Your task to perform on an android device: Empty the shopping cart on target. Search for "razer blackwidow" on target, select the first entry, add it to the cart, then select checkout. Image 0: 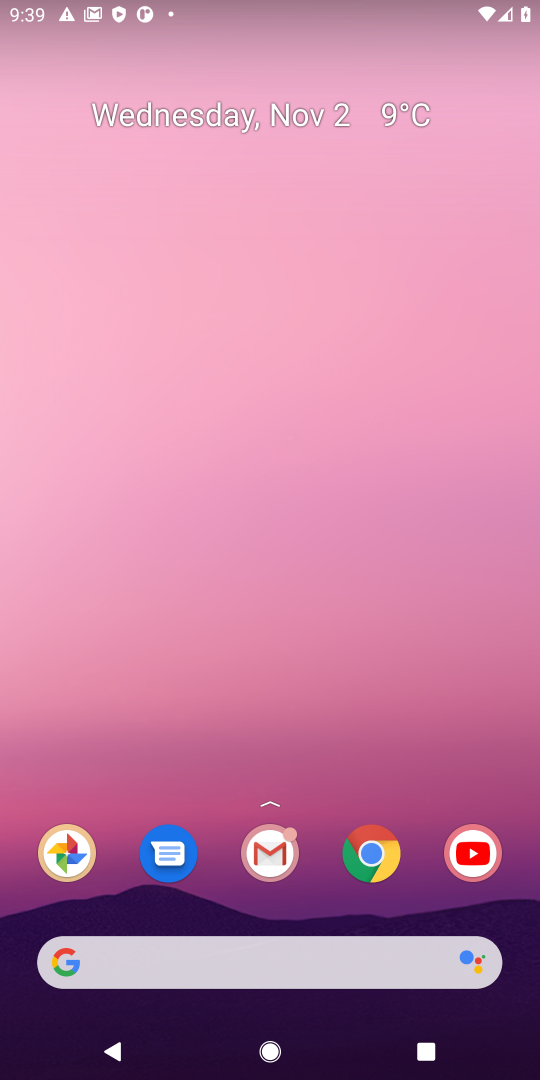
Step 0: click (368, 856)
Your task to perform on an android device: Empty the shopping cart on target. Search for "razer blackwidow" on target, select the first entry, add it to the cart, then select checkout. Image 1: 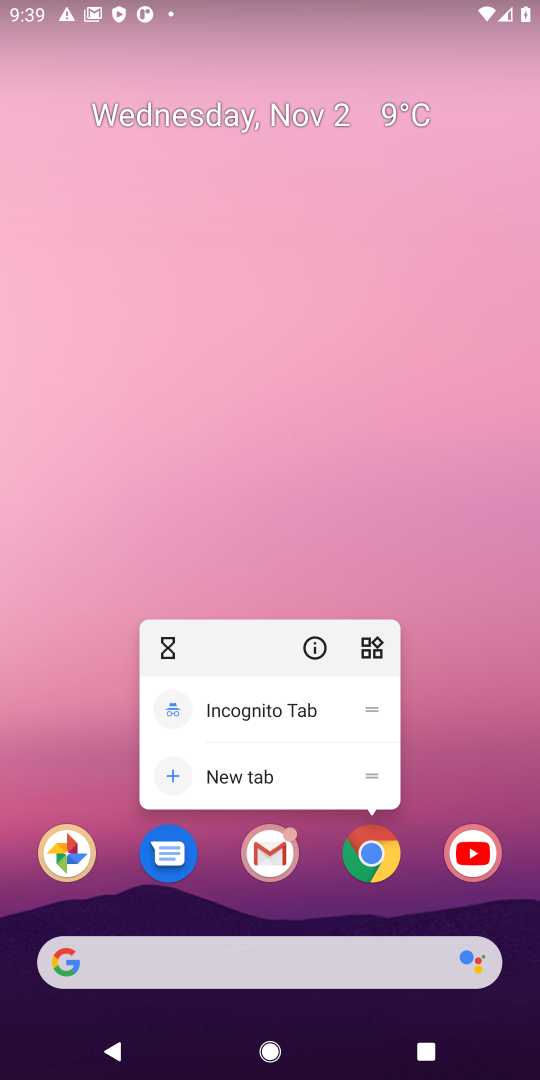
Step 1: click (356, 873)
Your task to perform on an android device: Empty the shopping cart on target. Search for "razer blackwidow" on target, select the first entry, add it to the cart, then select checkout. Image 2: 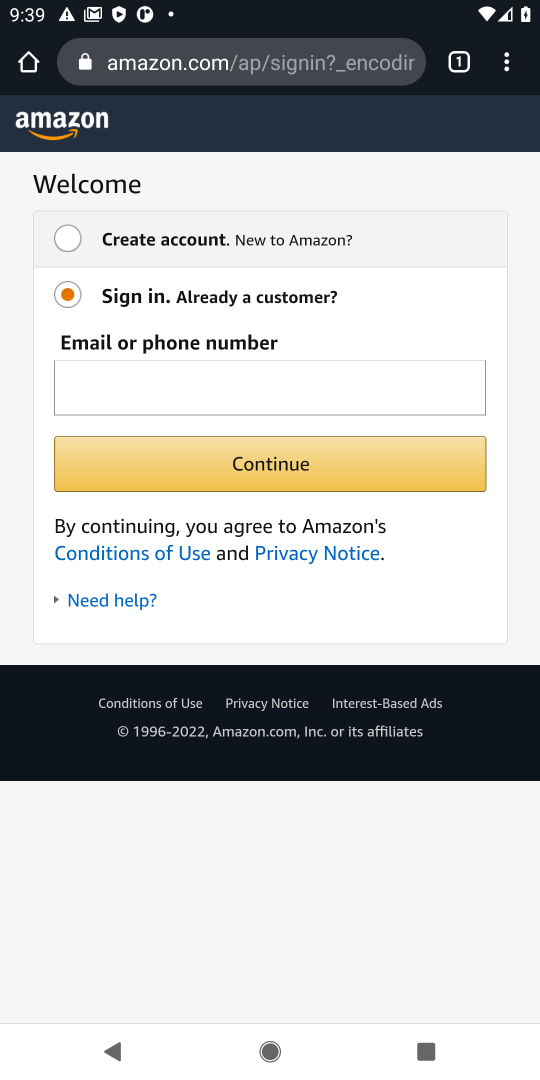
Step 2: click (263, 62)
Your task to perform on an android device: Empty the shopping cart on target. Search for "razer blackwidow" on target, select the first entry, add it to the cart, then select checkout. Image 3: 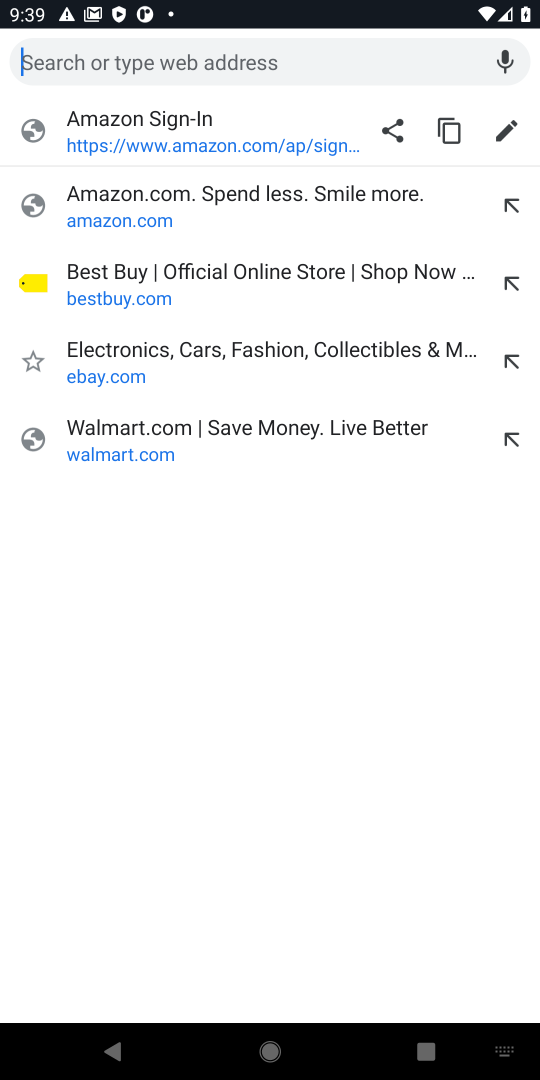
Step 3: type "target"
Your task to perform on an android device: Empty the shopping cart on target. Search for "razer blackwidow" on target, select the first entry, add it to the cart, then select checkout. Image 4: 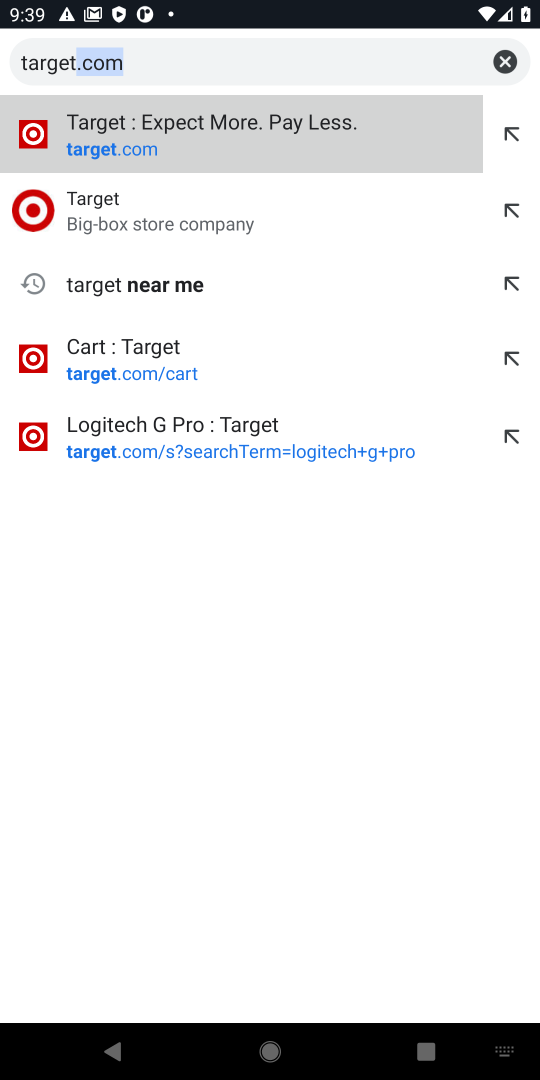
Step 4: press enter
Your task to perform on an android device: Empty the shopping cart on target. Search for "razer blackwidow" on target, select the first entry, add it to the cart, then select checkout. Image 5: 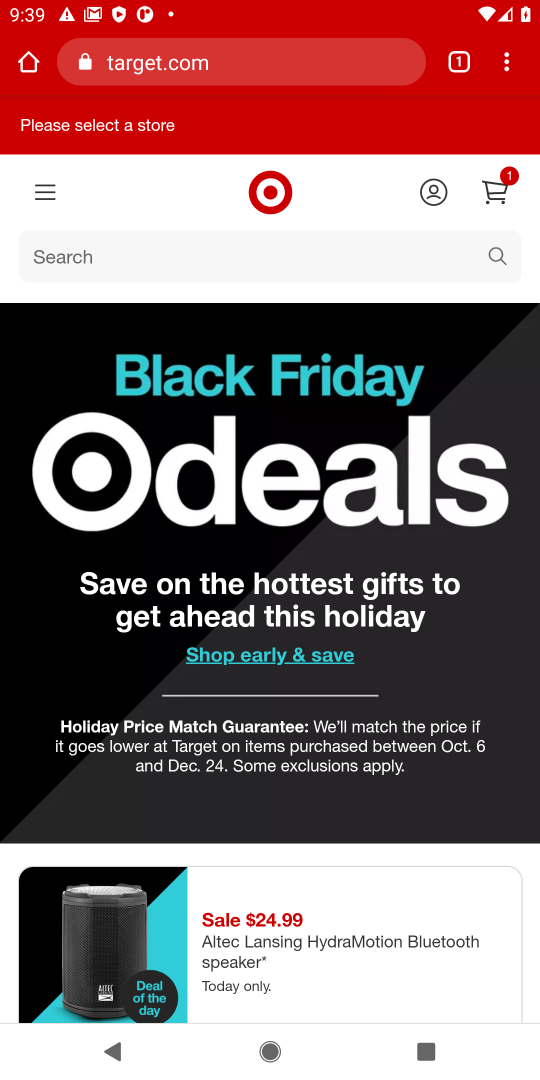
Step 5: click (183, 258)
Your task to perform on an android device: Empty the shopping cart on target. Search for "razer blackwidow" on target, select the first entry, add it to the cart, then select checkout. Image 6: 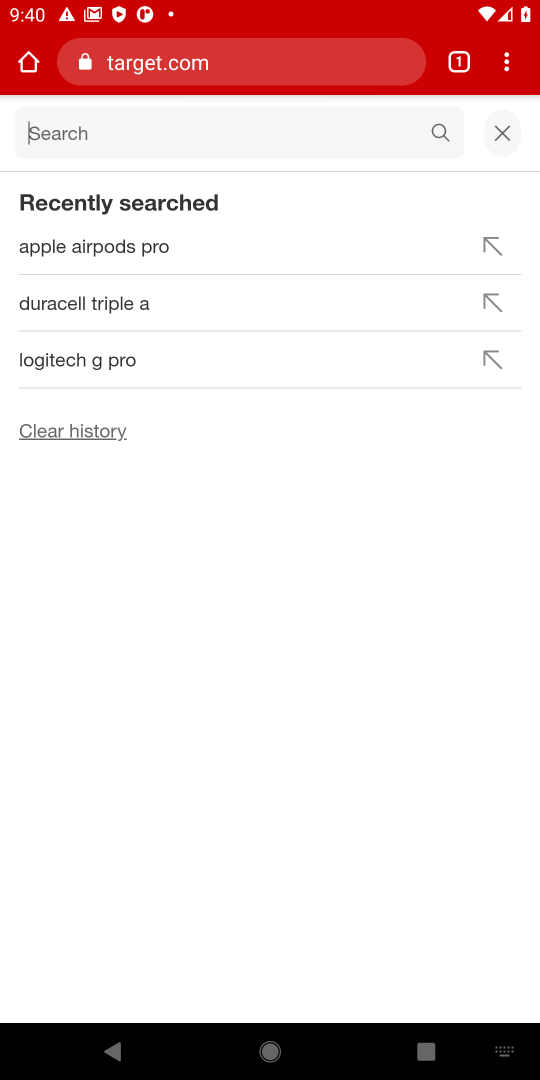
Step 6: type "razer blackwidow"
Your task to perform on an android device: Empty the shopping cart on target. Search for "razer blackwidow" on target, select the first entry, add it to the cart, then select checkout. Image 7: 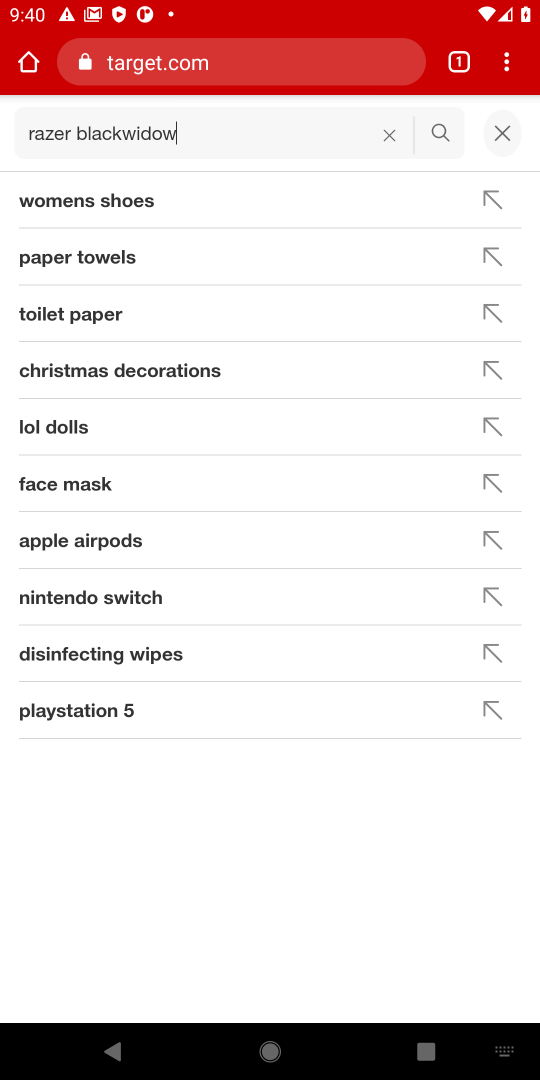
Step 7: press enter
Your task to perform on an android device: Empty the shopping cart on target. Search for "razer blackwidow" on target, select the first entry, add it to the cart, then select checkout. Image 8: 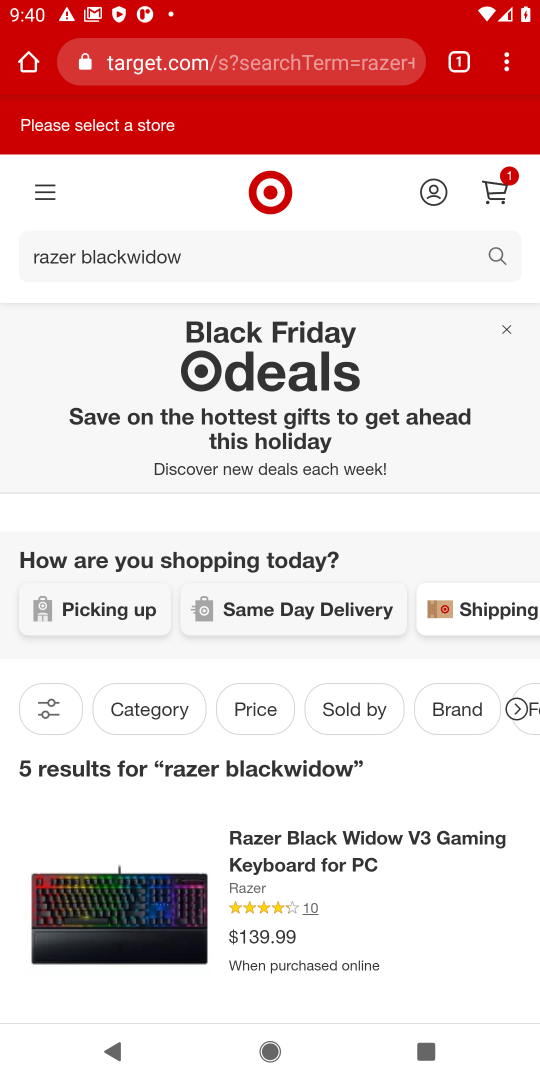
Step 8: drag from (181, 690) to (309, 406)
Your task to perform on an android device: Empty the shopping cart on target. Search for "razer blackwidow" on target, select the first entry, add it to the cart, then select checkout. Image 9: 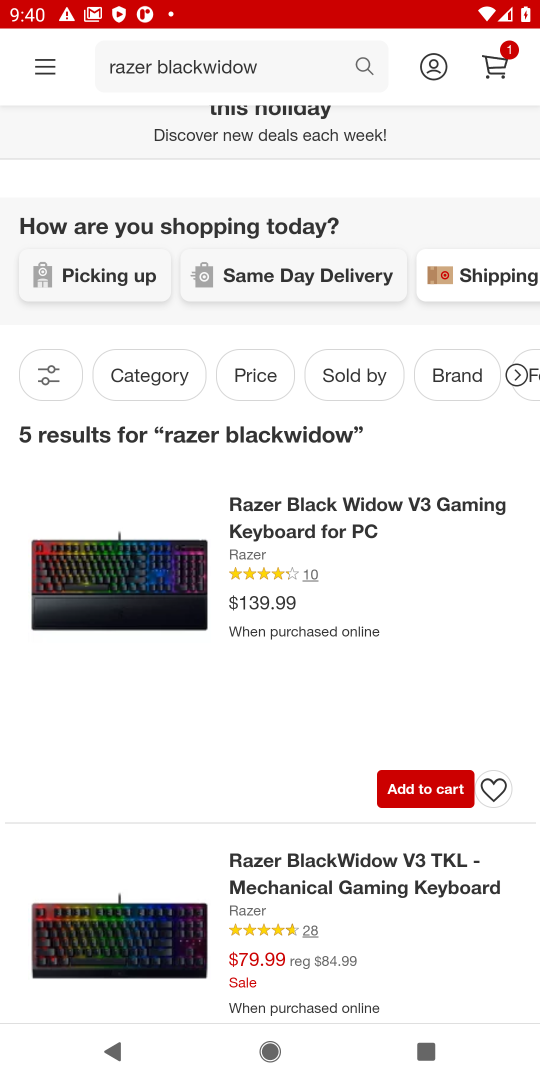
Step 9: click (409, 787)
Your task to perform on an android device: Empty the shopping cart on target. Search for "razer blackwidow" on target, select the first entry, add it to the cart, then select checkout. Image 10: 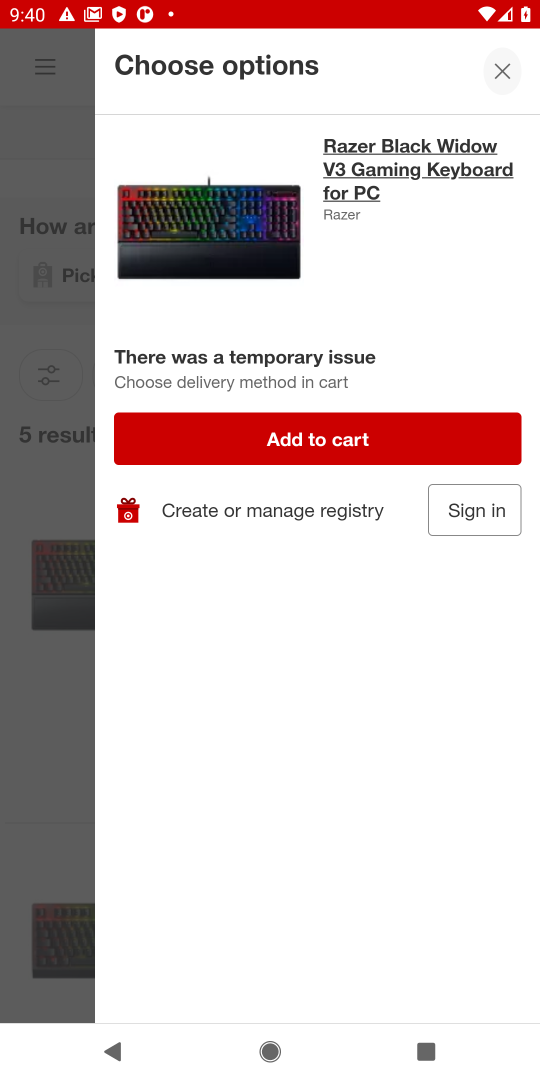
Step 10: click (322, 435)
Your task to perform on an android device: Empty the shopping cart on target. Search for "razer blackwidow" on target, select the first entry, add it to the cart, then select checkout. Image 11: 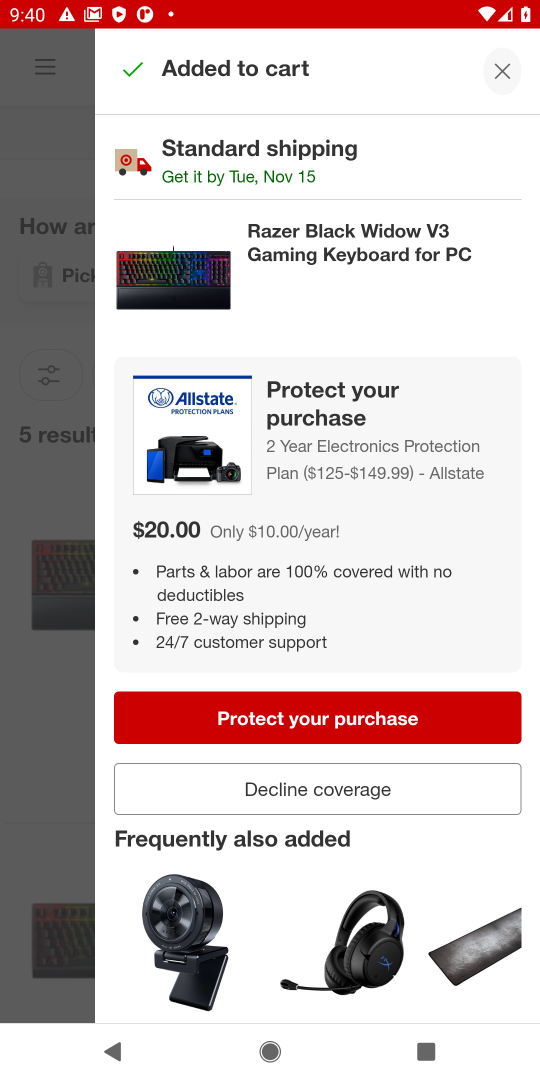
Step 11: click (500, 68)
Your task to perform on an android device: Empty the shopping cart on target. Search for "razer blackwidow" on target, select the first entry, add it to the cart, then select checkout. Image 12: 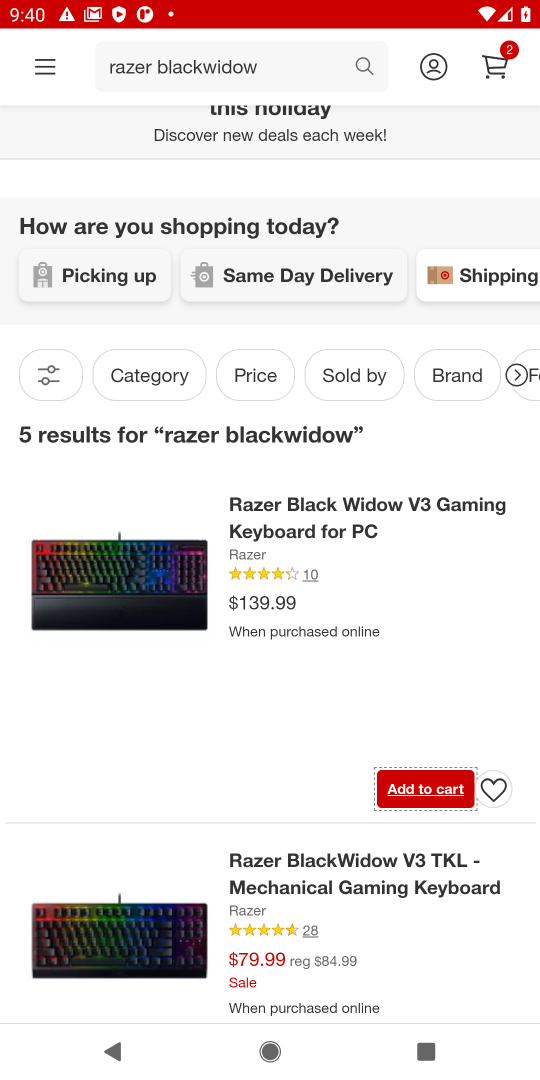
Step 12: click (495, 66)
Your task to perform on an android device: Empty the shopping cart on target. Search for "razer blackwidow" on target, select the first entry, add it to the cart, then select checkout. Image 13: 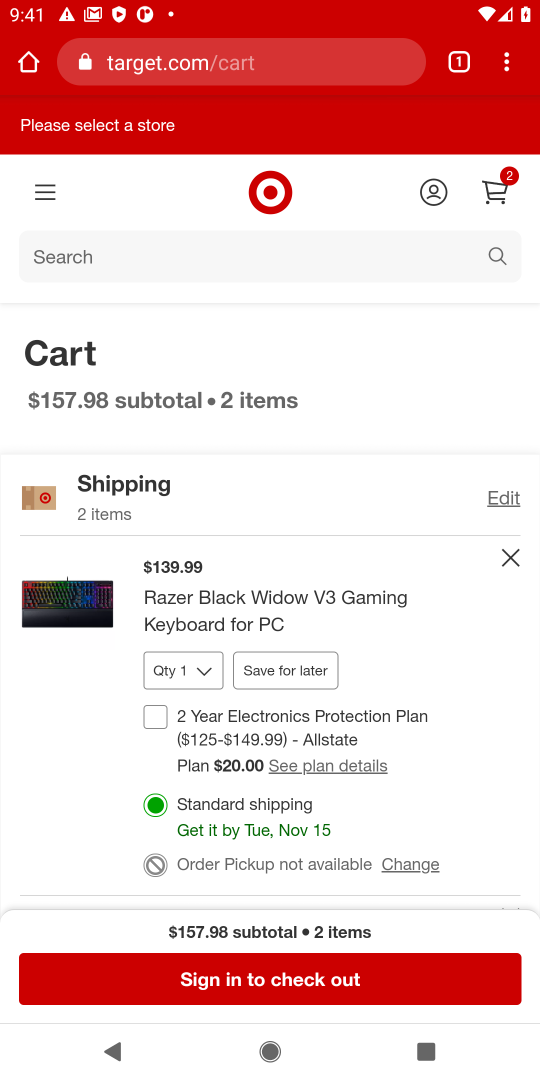
Step 13: drag from (211, 779) to (374, 306)
Your task to perform on an android device: Empty the shopping cart on target. Search for "razer blackwidow" on target, select the first entry, add it to the cart, then select checkout. Image 14: 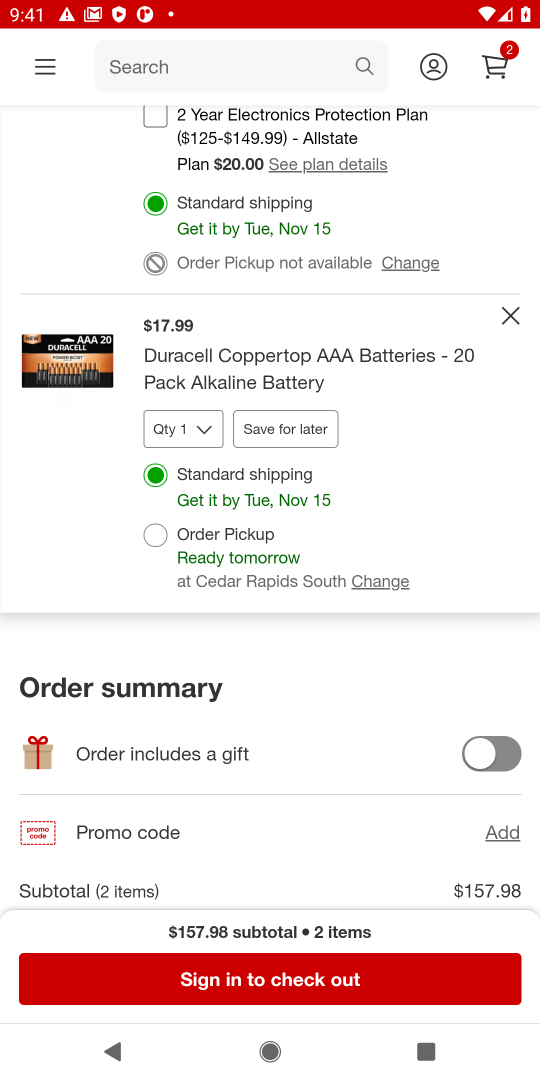
Step 14: click (504, 306)
Your task to perform on an android device: Empty the shopping cart on target. Search for "razer blackwidow" on target, select the first entry, add it to the cart, then select checkout. Image 15: 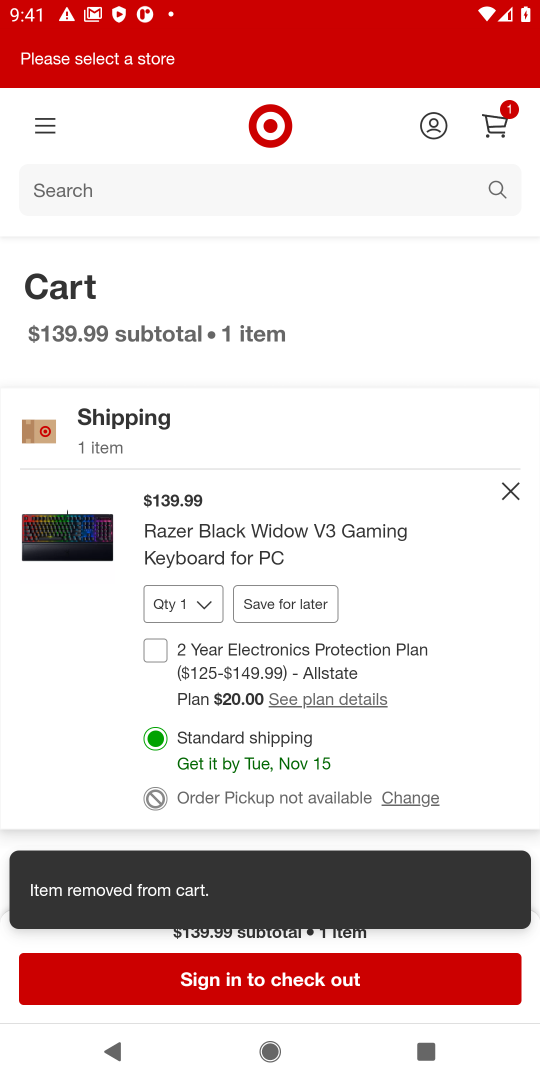
Step 15: drag from (380, 707) to (480, 243)
Your task to perform on an android device: Empty the shopping cart on target. Search for "razer blackwidow" on target, select the first entry, add it to the cart, then select checkout. Image 16: 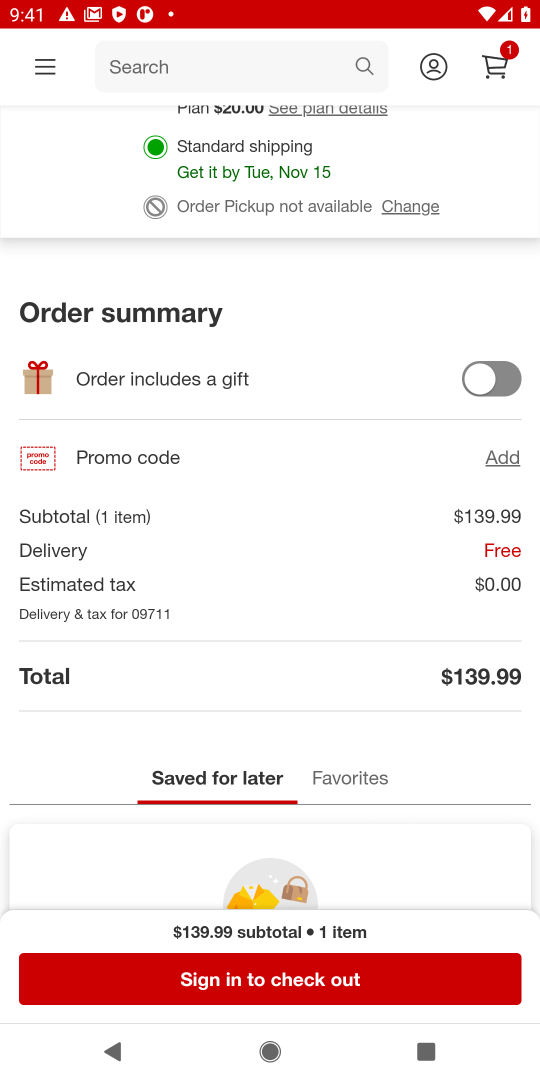
Step 16: click (251, 979)
Your task to perform on an android device: Empty the shopping cart on target. Search for "razer blackwidow" on target, select the first entry, add it to the cart, then select checkout. Image 17: 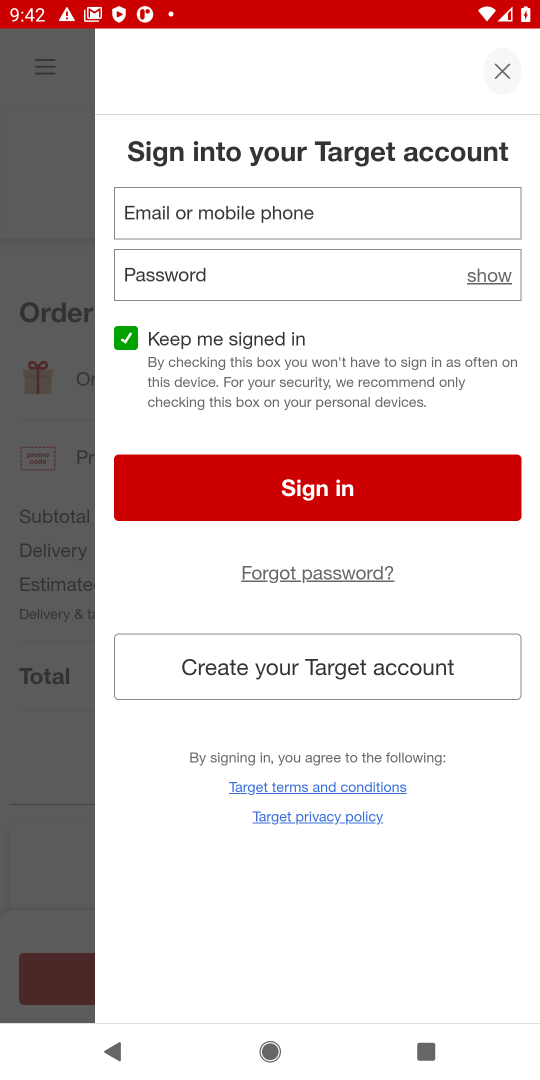
Step 17: click (500, 71)
Your task to perform on an android device: Empty the shopping cart on target. Search for "razer blackwidow" on target, select the first entry, add it to the cart, then select checkout. Image 18: 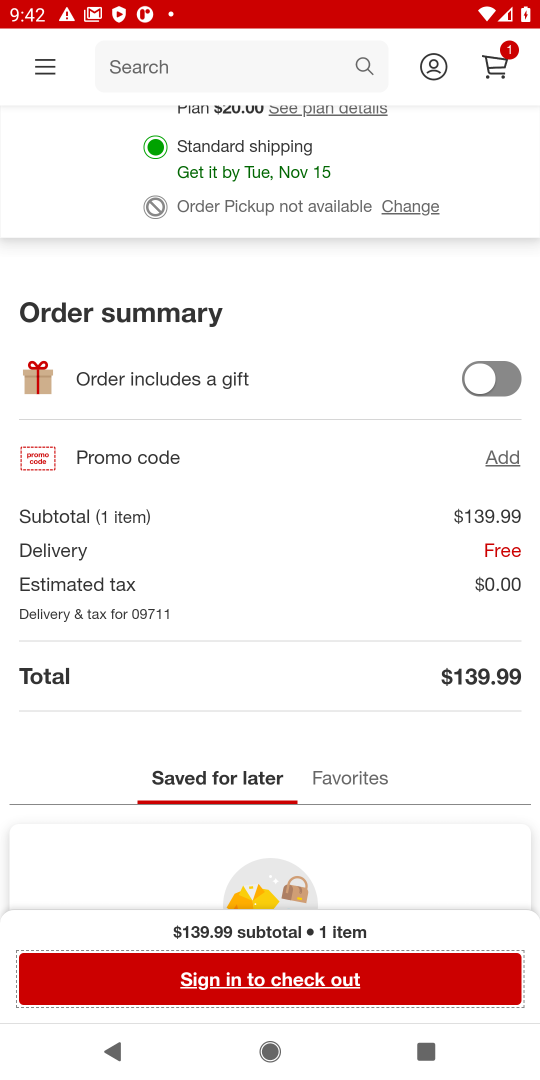
Step 18: drag from (238, 214) to (304, 724)
Your task to perform on an android device: Empty the shopping cart on target. Search for "razer blackwidow" on target, select the first entry, add it to the cart, then select checkout. Image 19: 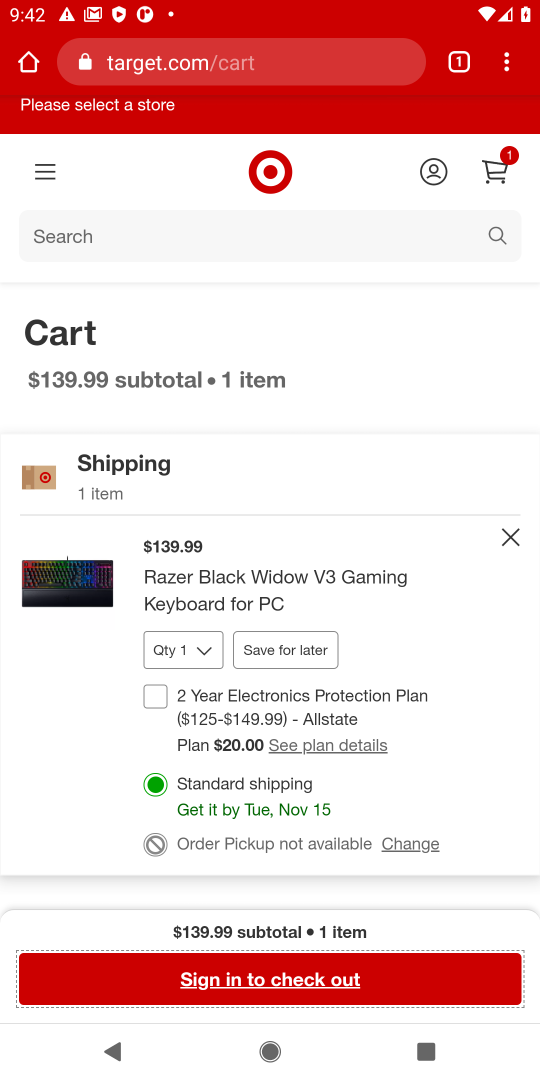
Step 19: click (510, 533)
Your task to perform on an android device: Empty the shopping cart on target. Search for "razer blackwidow" on target, select the first entry, add it to the cart, then select checkout. Image 20: 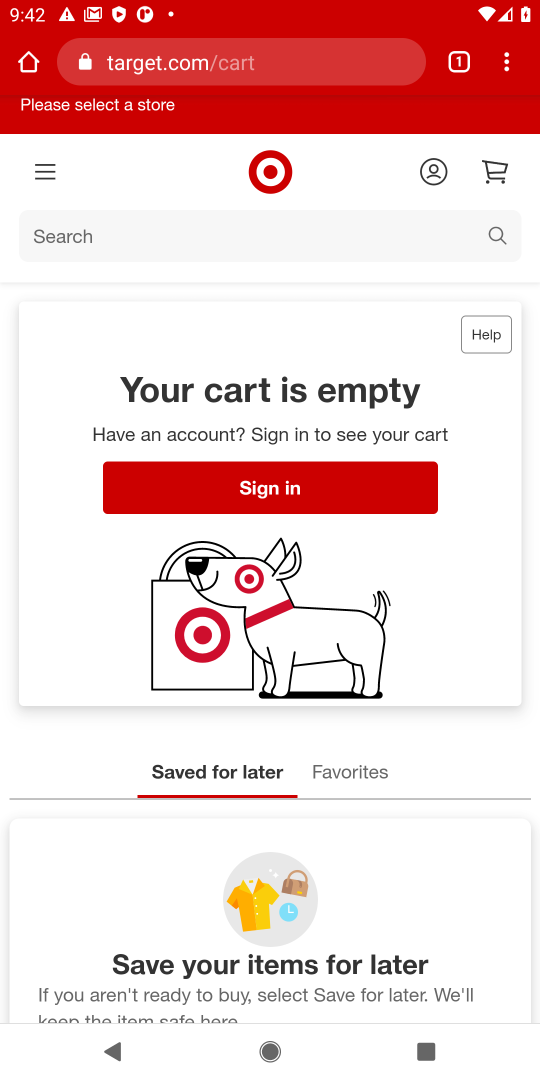
Step 20: click (120, 244)
Your task to perform on an android device: Empty the shopping cart on target. Search for "razer blackwidow" on target, select the first entry, add it to the cart, then select checkout. Image 21: 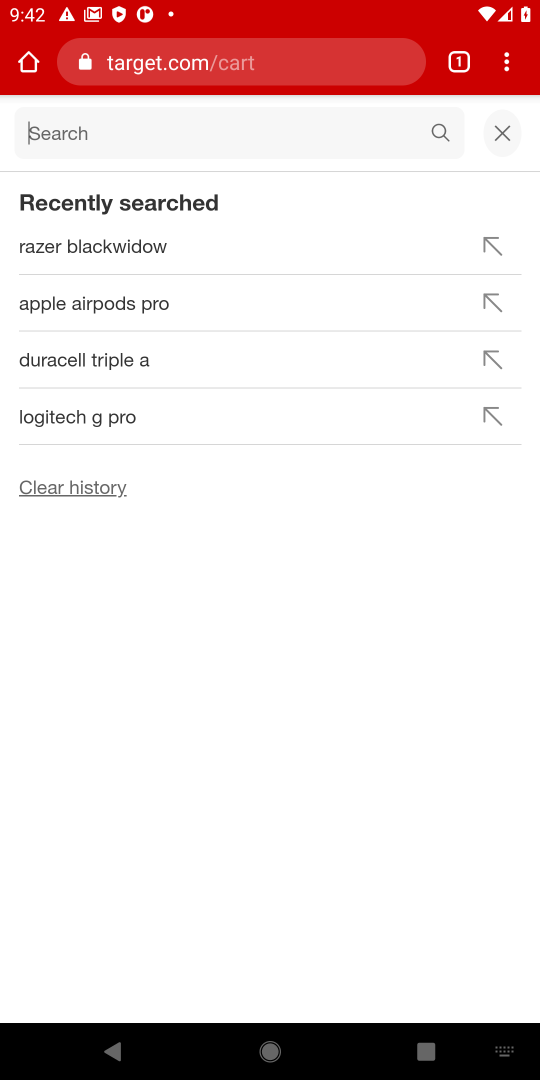
Step 21: click (120, 244)
Your task to perform on an android device: Empty the shopping cart on target. Search for "razer blackwidow" on target, select the first entry, add it to the cart, then select checkout. Image 22: 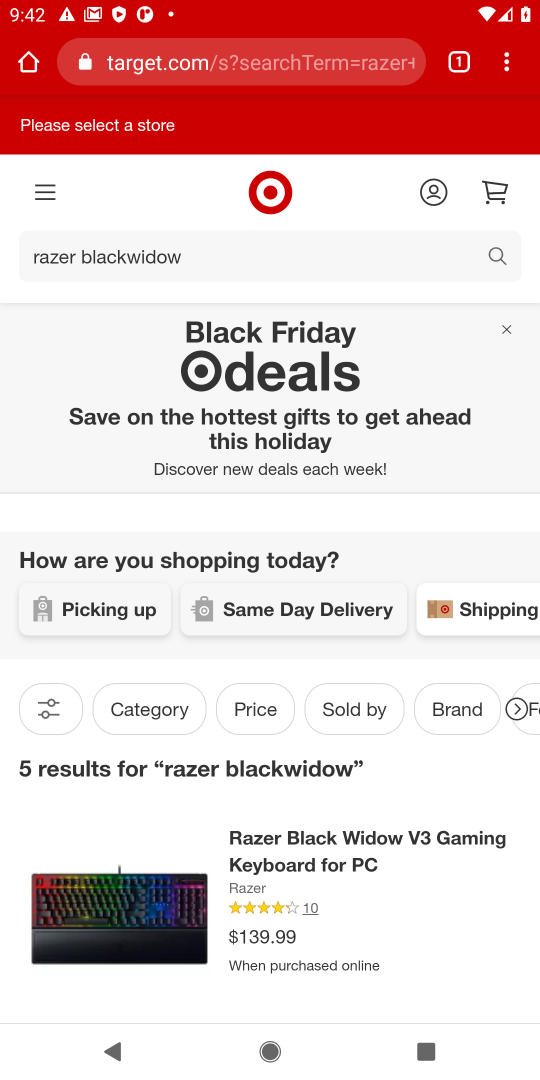
Step 22: drag from (141, 931) to (304, 507)
Your task to perform on an android device: Empty the shopping cart on target. Search for "razer blackwidow" on target, select the first entry, add it to the cart, then select checkout. Image 23: 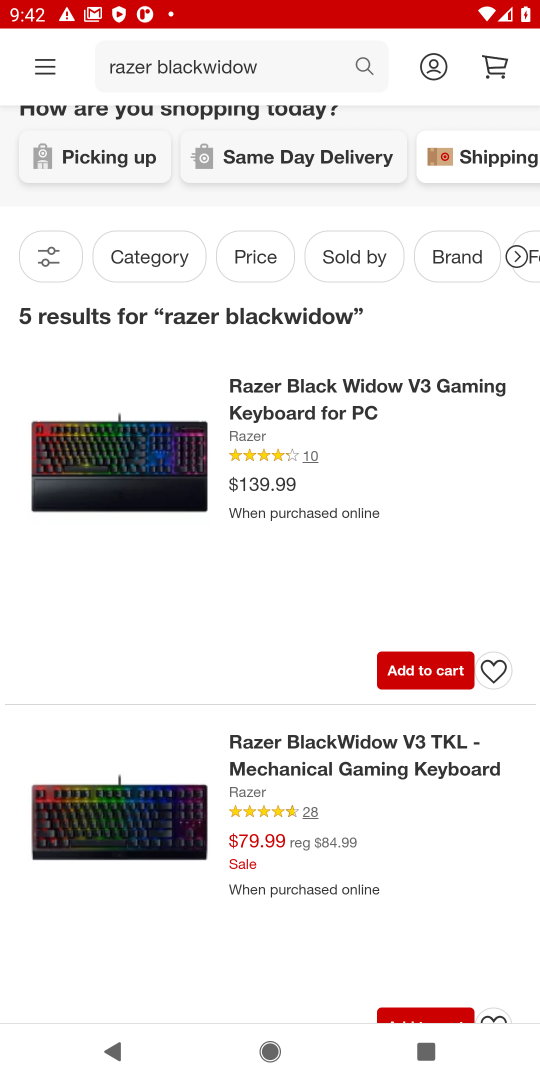
Step 23: click (410, 677)
Your task to perform on an android device: Empty the shopping cart on target. Search for "razer blackwidow" on target, select the first entry, add it to the cart, then select checkout. Image 24: 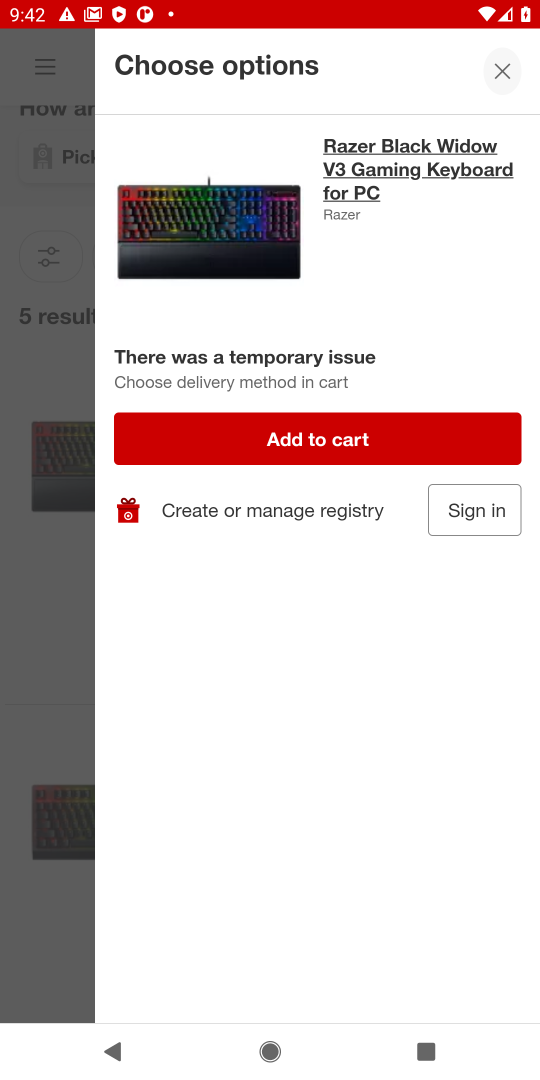
Step 24: click (334, 437)
Your task to perform on an android device: Empty the shopping cart on target. Search for "razer blackwidow" on target, select the first entry, add it to the cart, then select checkout. Image 25: 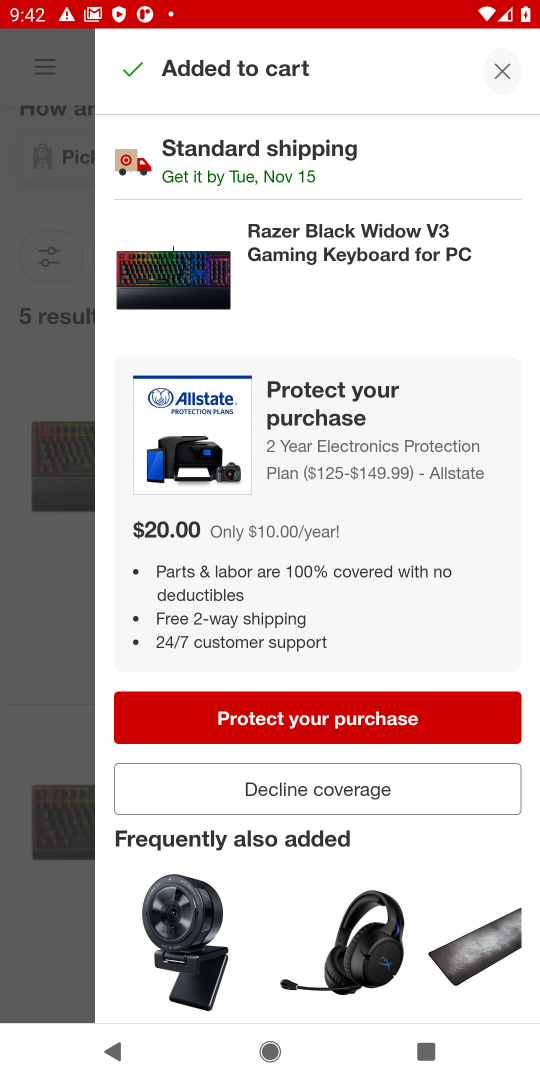
Step 25: click (496, 69)
Your task to perform on an android device: Empty the shopping cart on target. Search for "razer blackwidow" on target, select the first entry, add it to the cart, then select checkout. Image 26: 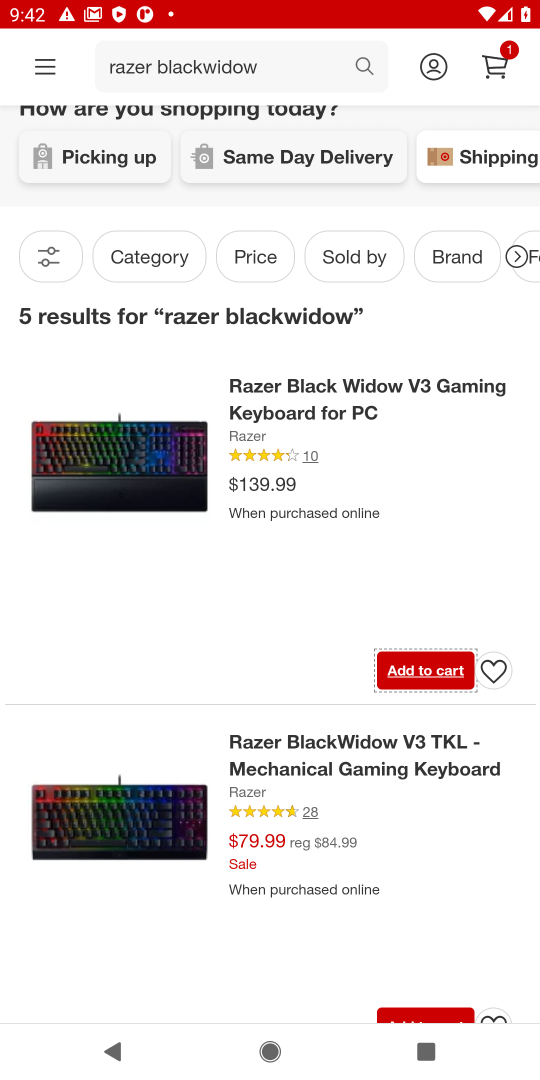
Step 26: click (491, 57)
Your task to perform on an android device: Empty the shopping cart on target. Search for "razer blackwidow" on target, select the first entry, add it to the cart, then select checkout. Image 27: 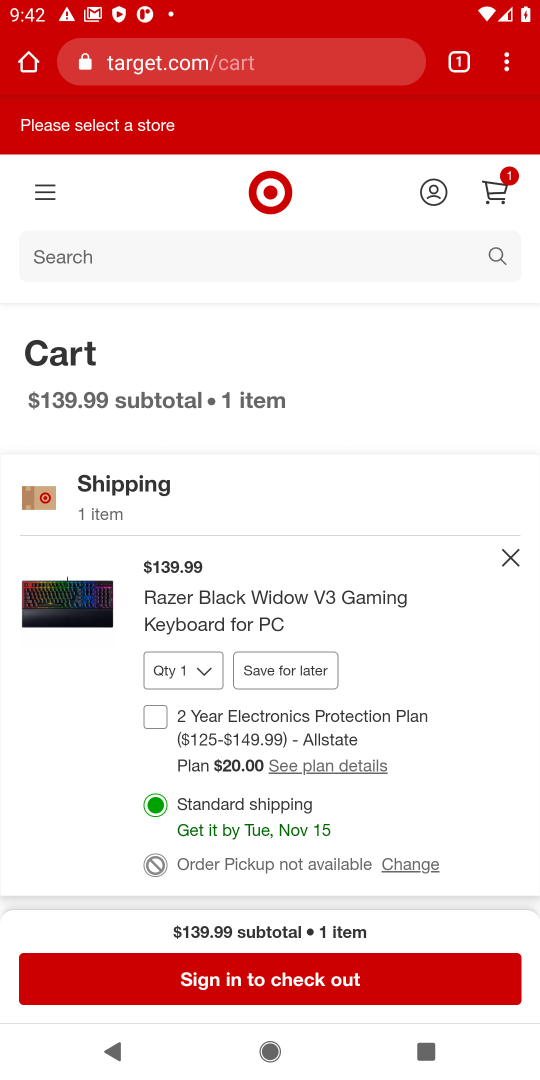
Step 27: click (279, 982)
Your task to perform on an android device: Empty the shopping cart on target. Search for "razer blackwidow" on target, select the first entry, add it to the cart, then select checkout. Image 28: 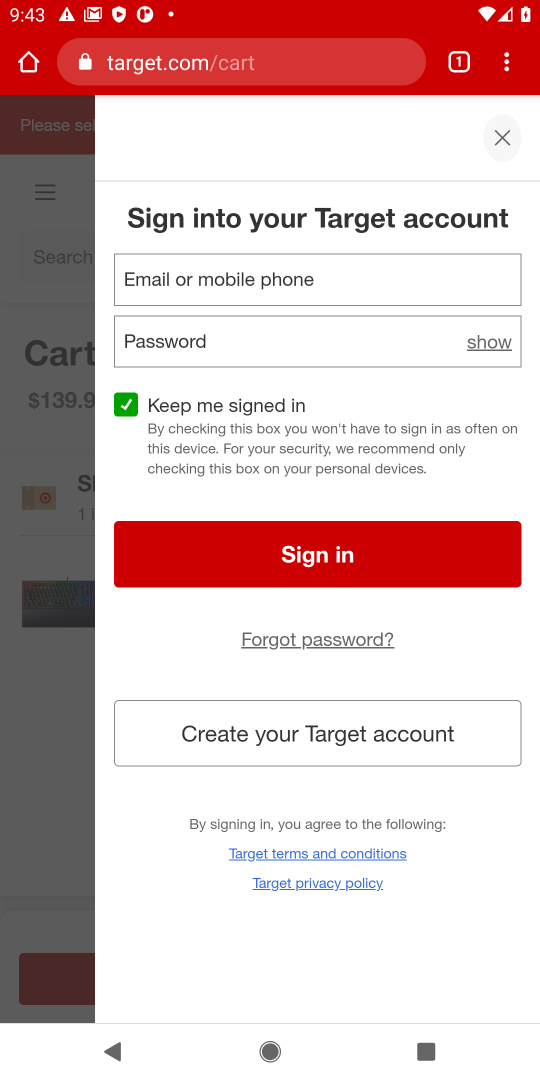
Step 28: task complete